Your task to perform on an android device: remove spam from my inbox in the gmail app Image 0: 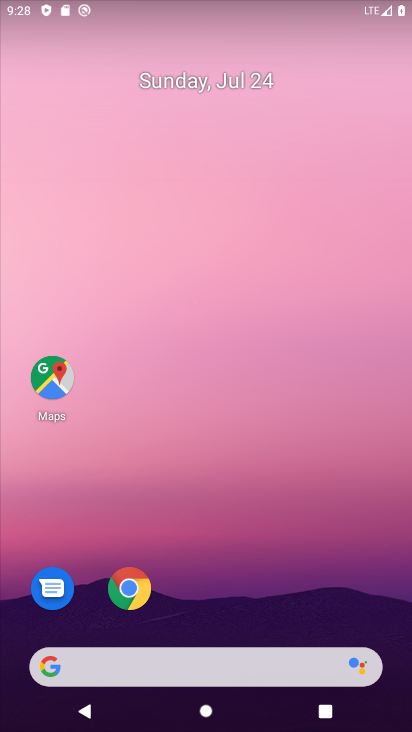
Step 0: drag from (126, 463) to (256, 142)
Your task to perform on an android device: remove spam from my inbox in the gmail app Image 1: 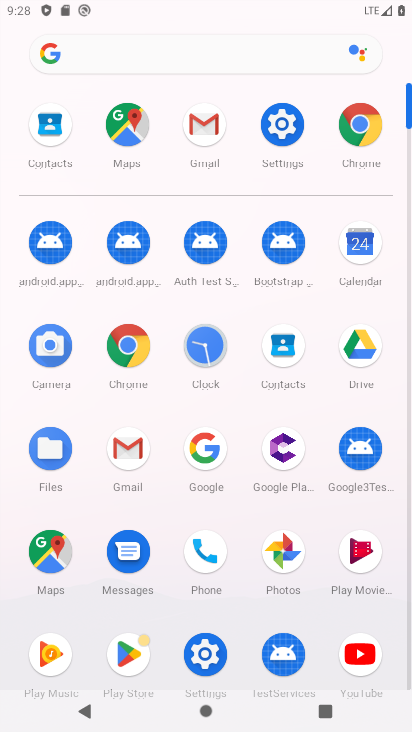
Step 1: click (210, 122)
Your task to perform on an android device: remove spam from my inbox in the gmail app Image 2: 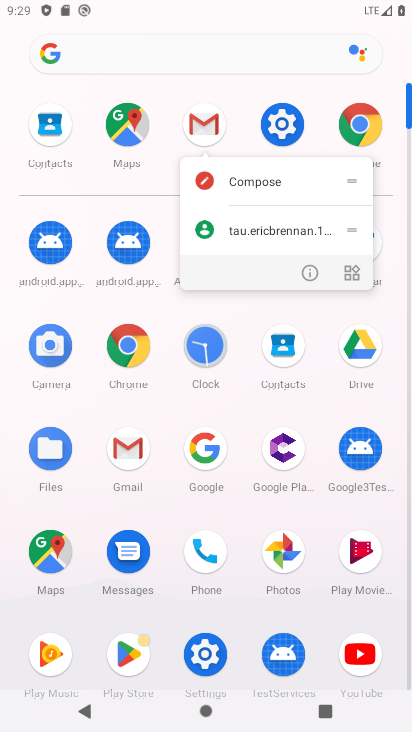
Step 2: click (205, 127)
Your task to perform on an android device: remove spam from my inbox in the gmail app Image 3: 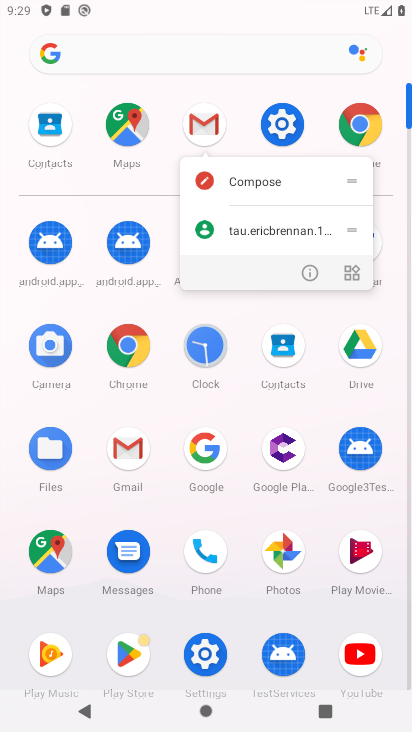
Step 3: click (205, 127)
Your task to perform on an android device: remove spam from my inbox in the gmail app Image 4: 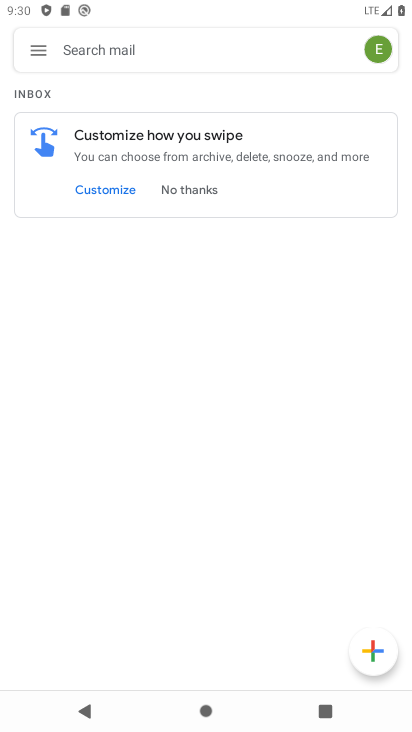
Step 4: task complete